Your task to perform on an android device: turn notification dots off Image 0: 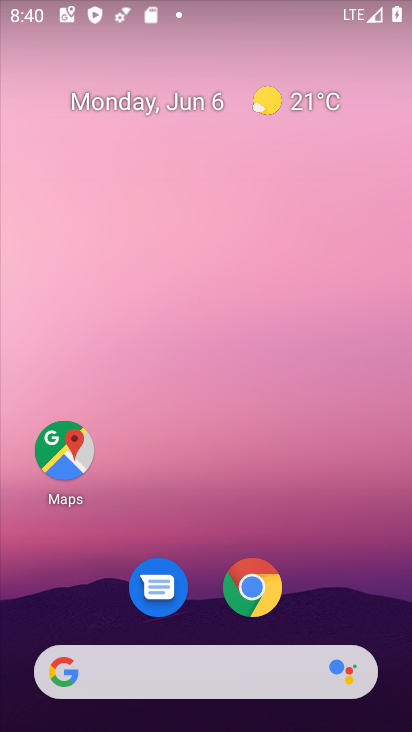
Step 0: drag from (238, 612) to (125, 12)
Your task to perform on an android device: turn notification dots off Image 1: 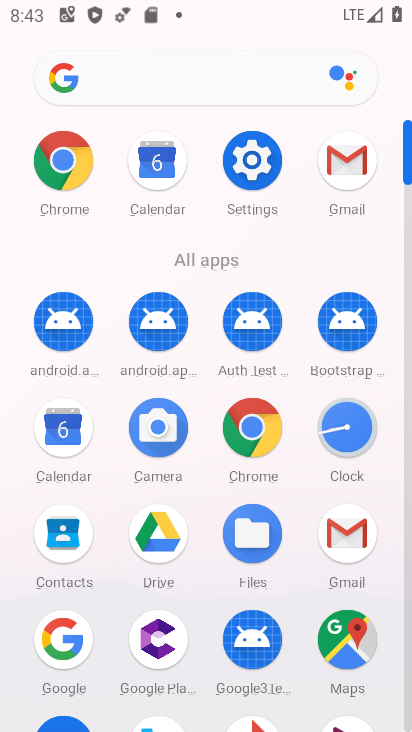
Step 1: click (245, 152)
Your task to perform on an android device: turn notification dots off Image 2: 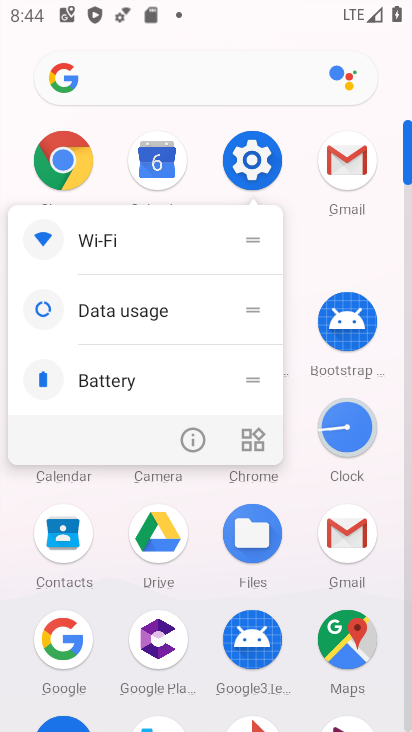
Step 2: click (244, 159)
Your task to perform on an android device: turn notification dots off Image 3: 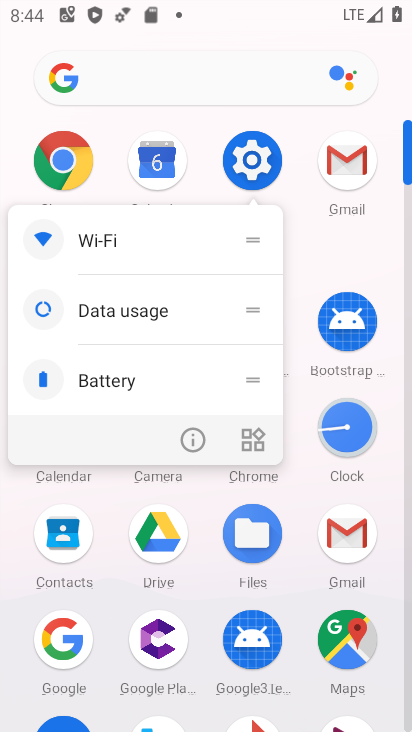
Step 3: click (244, 159)
Your task to perform on an android device: turn notification dots off Image 4: 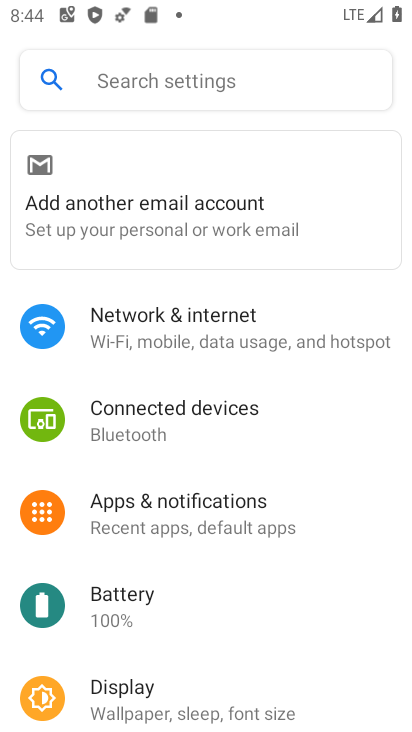
Step 4: click (273, 510)
Your task to perform on an android device: turn notification dots off Image 5: 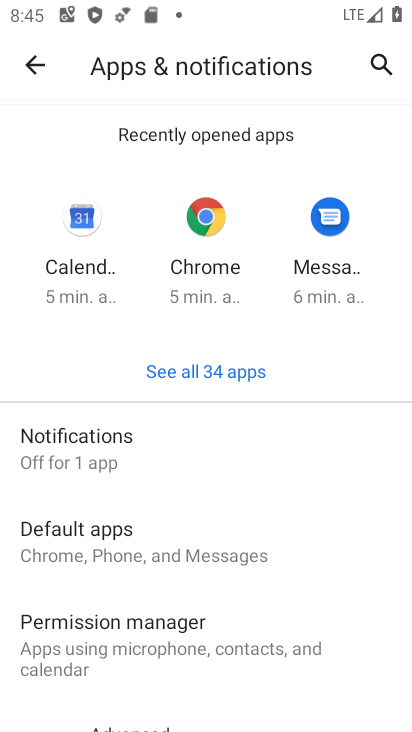
Step 5: click (133, 438)
Your task to perform on an android device: turn notification dots off Image 6: 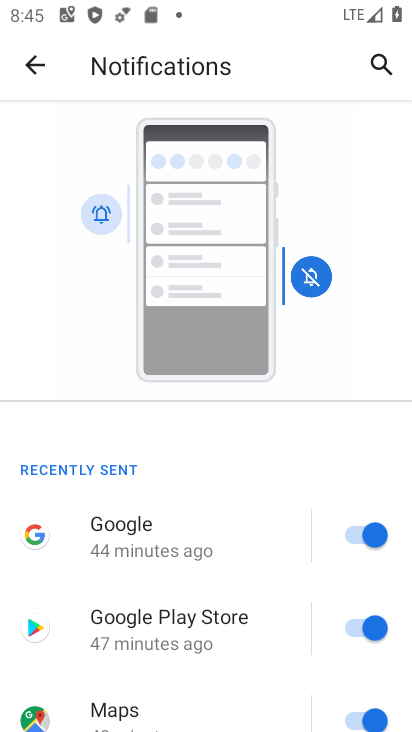
Step 6: drag from (273, 586) to (224, 51)
Your task to perform on an android device: turn notification dots off Image 7: 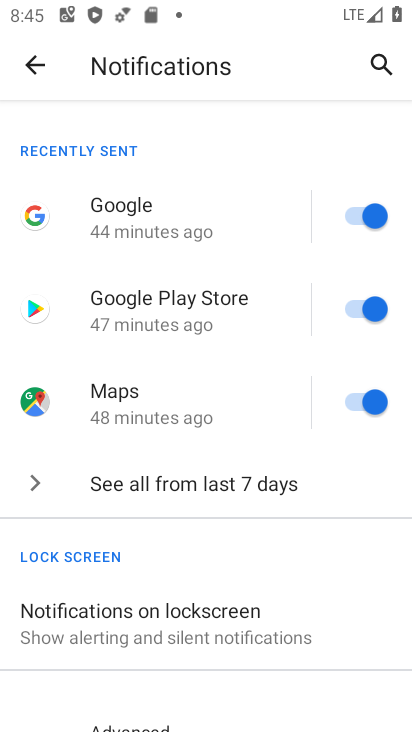
Step 7: drag from (238, 600) to (246, 13)
Your task to perform on an android device: turn notification dots off Image 8: 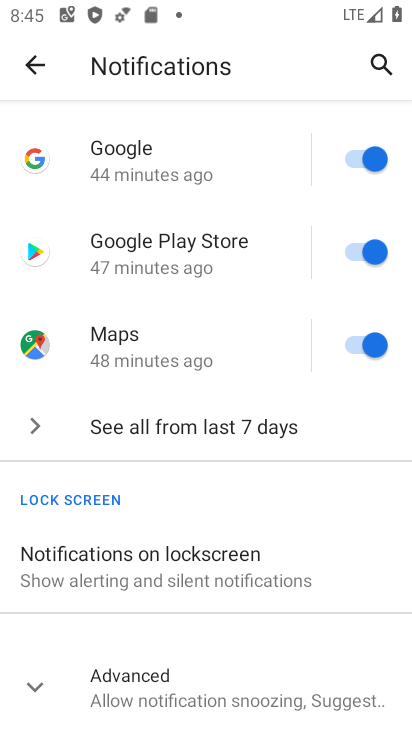
Step 8: click (198, 692)
Your task to perform on an android device: turn notification dots off Image 9: 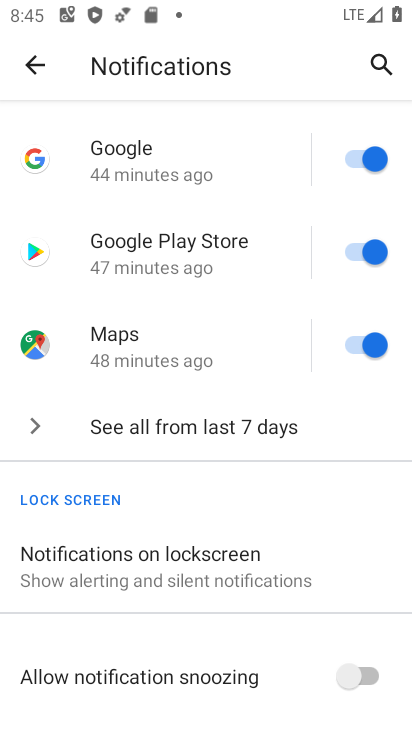
Step 9: drag from (279, 661) to (368, 4)
Your task to perform on an android device: turn notification dots off Image 10: 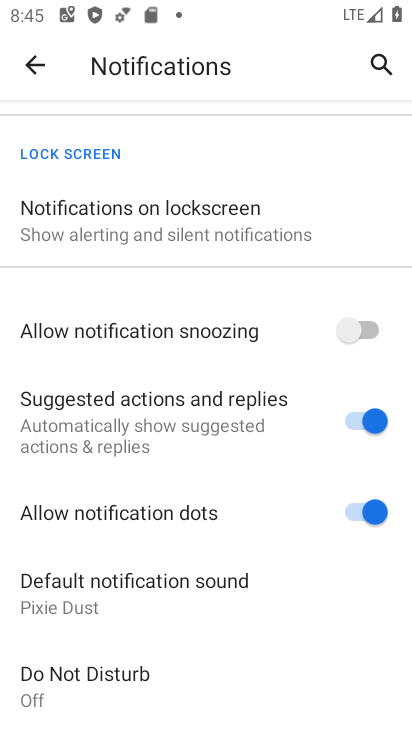
Step 10: click (372, 504)
Your task to perform on an android device: turn notification dots off Image 11: 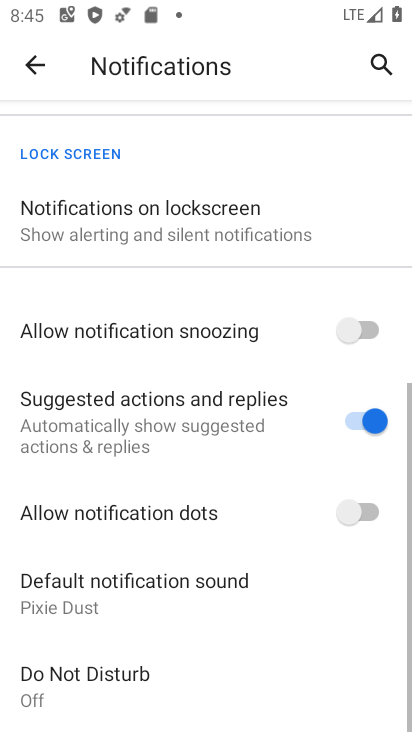
Step 11: task complete